Your task to perform on an android device: find snoozed emails in the gmail app Image 0: 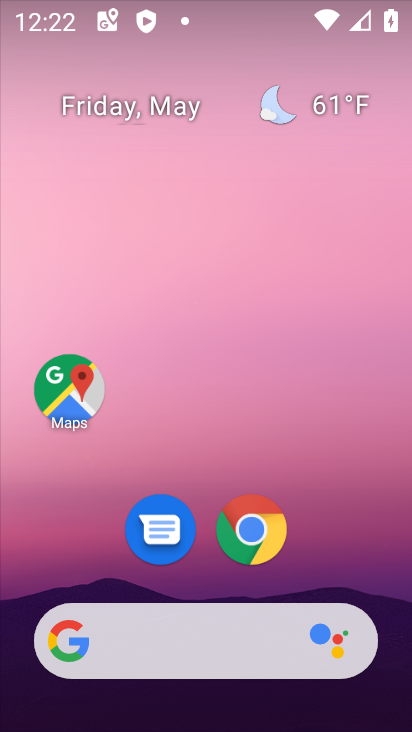
Step 0: drag from (354, 537) to (334, 66)
Your task to perform on an android device: find snoozed emails in the gmail app Image 1: 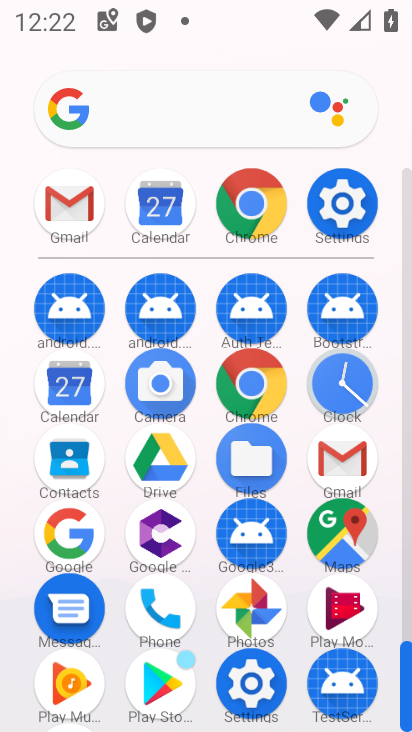
Step 1: click (77, 202)
Your task to perform on an android device: find snoozed emails in the gmail app Image 2: 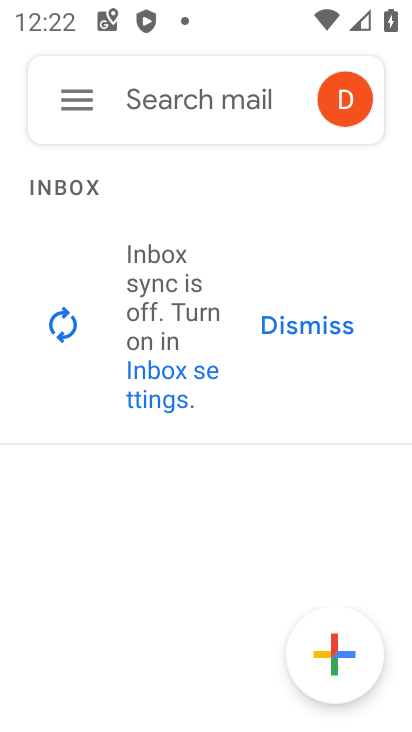
Step 2: click (88, 109)
Your task to perform on an android device: find snoozed emails in the gmail app Image 3: 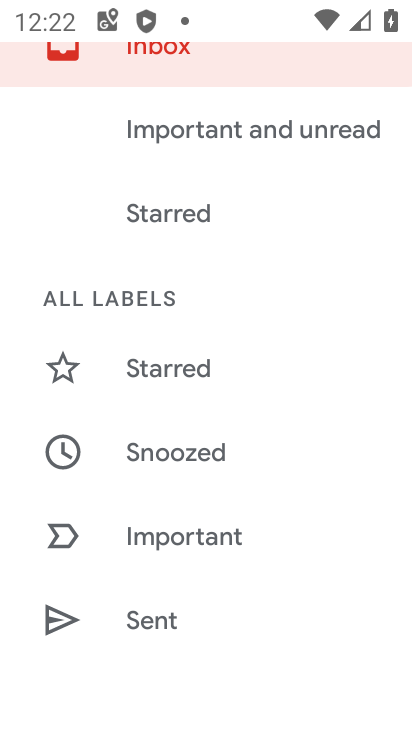
Step 3: click (210, 482)
Your task to perform on an android device: find snoozed emails in the gmail app Image 4: 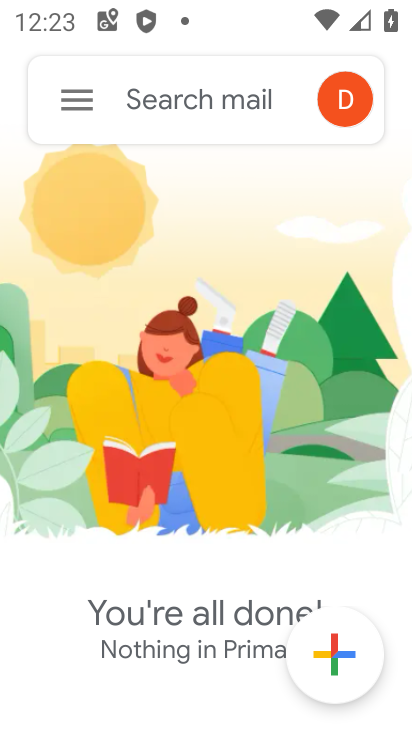
Step 4: task complete